Your task to perform on an android device: Open calendar and show me the fourth week of next month Image 0: 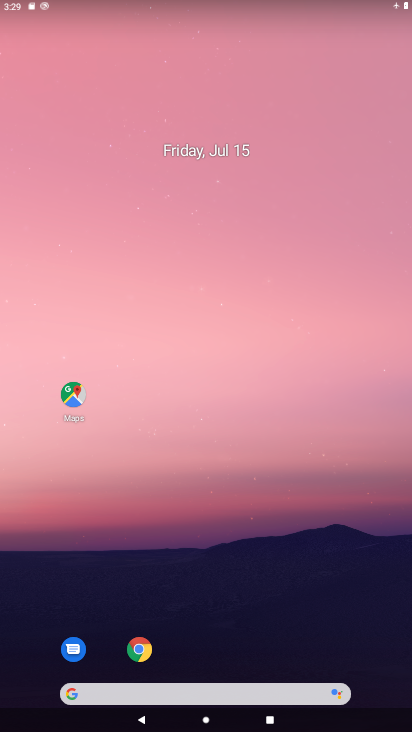
Step 0: drag from (358, 649) to (335, 171)
Your task to perform on an android device: Open calendar and show me the fourth week of next month Image 1: 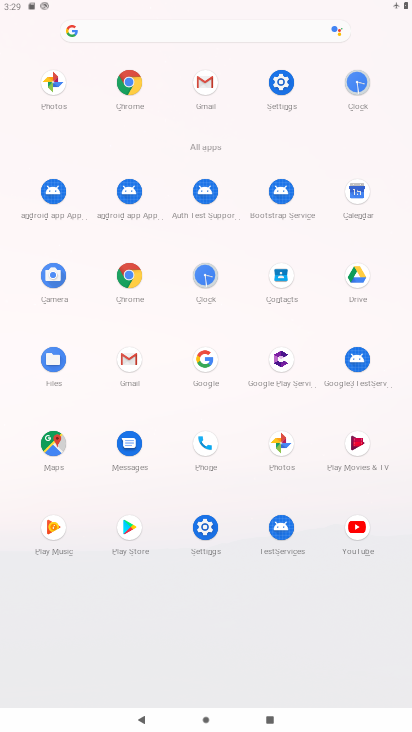
Step 1: click (358, 189)
Your task to perform on an android device: Open calendar and show me the fourth week of next month Image 2: 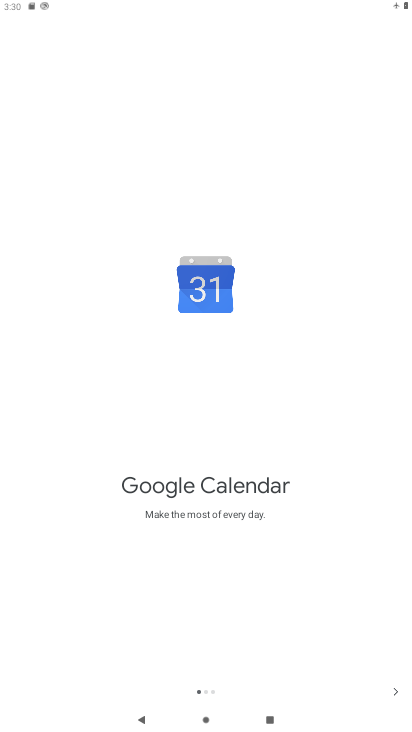
Step 2: click (395, 692)
Your task to perform on an android device: Open calendar and show me the fourth week of next month Image 3: 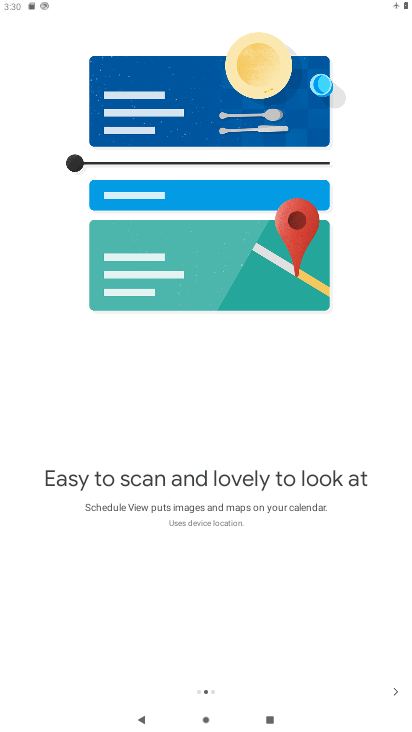
Step 3: click (394, 690)
Your task to perform on an android device: Open calendar and show me the fourth week of next month Image 4: 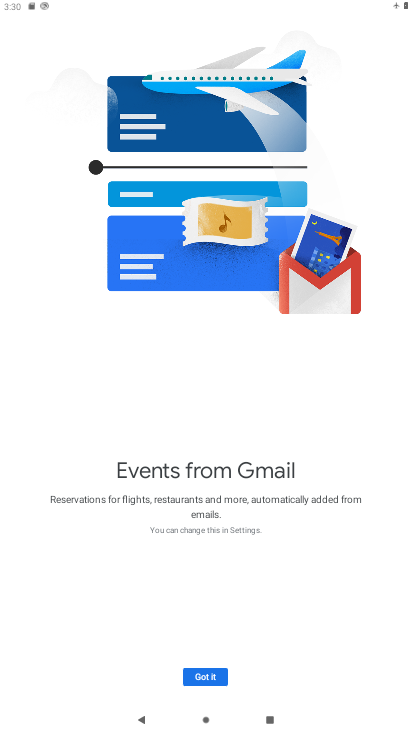
Step 4: click (195, 678)
Your task to perform on an android device: Open calendar and show me the fourth week of next month Image 5: 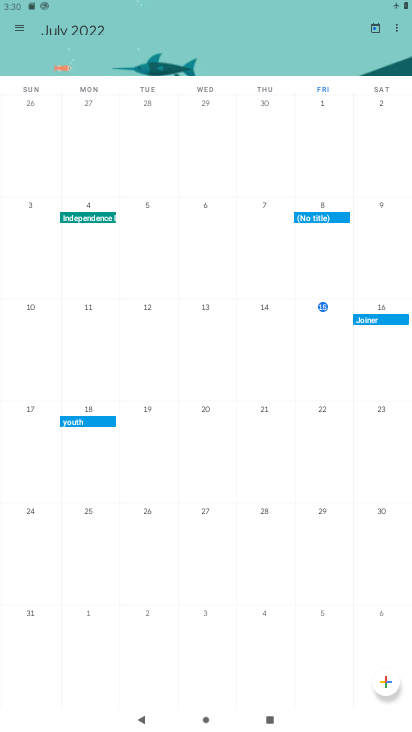
Step 5: click (17, 32)
Your task to perform on an android device: Open calendar and show me the fourth week of next month Image 6: 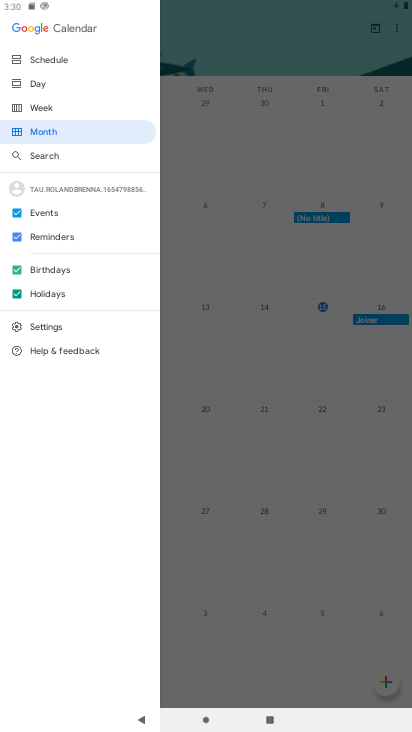
Step 6: click (35, 105)
Your task to perform on an android device: Open calendar and show me the fourth week of next month Image 7: 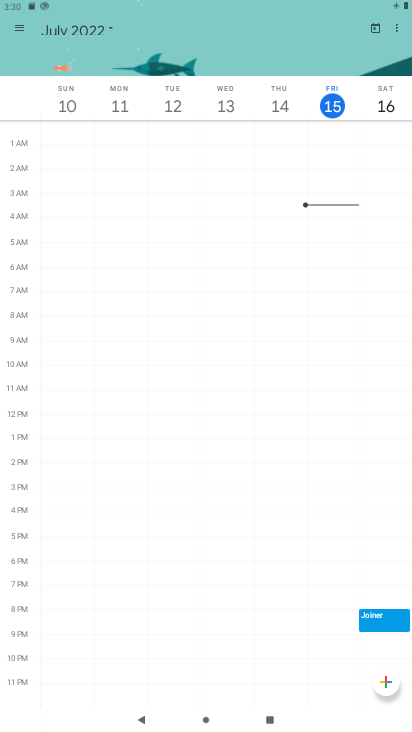
Step 7: click (110, 28)
Your task to perform on an android device: Open calendar and show me the fourth week of next month Image 8: 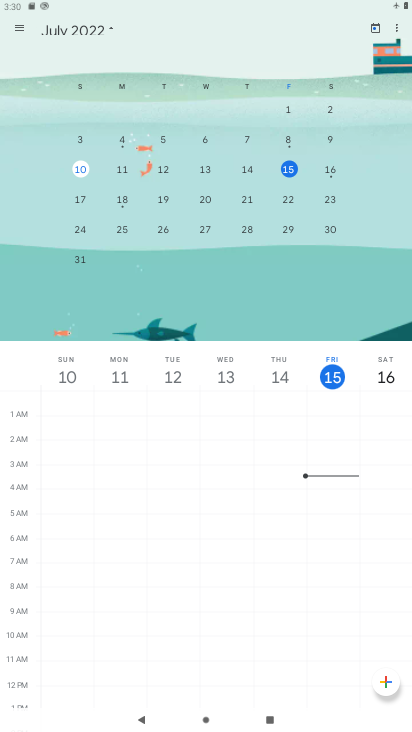
Step 8: drag from (346, 223) to (91, 229)
Your task to perform on an android device: Open calendar and show me the fourth week of next month Image 9: 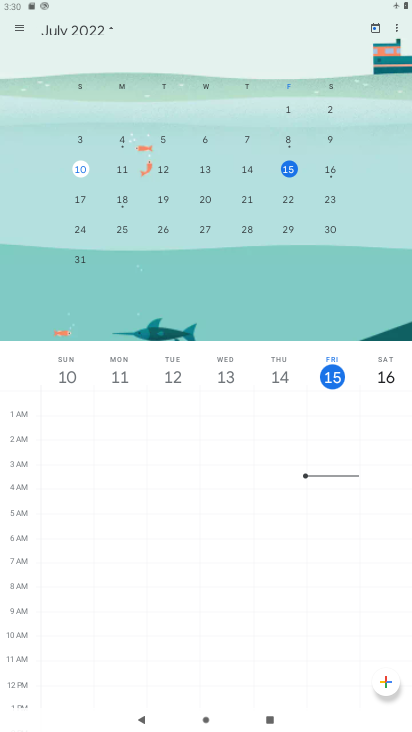
Step 9: drag from (354, 211) to (45, 211)
Your task to perform on an android device: Open calendar and show me the fourth week of next month Image 10: 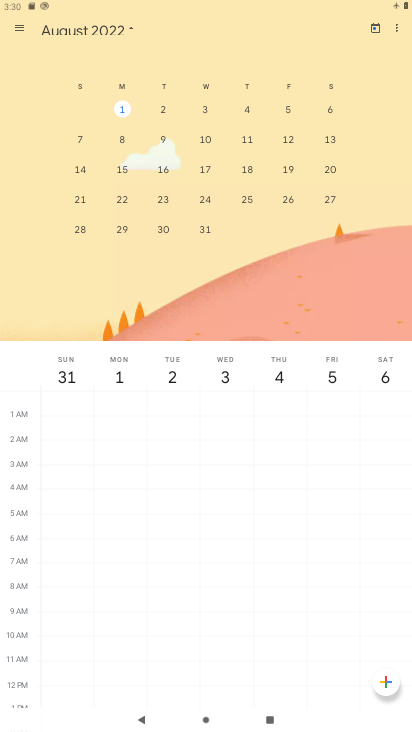
Step 10: click (79, 226)
Your task to perform on an android device: Open calendar and show me the fourth week of next month Image 11: 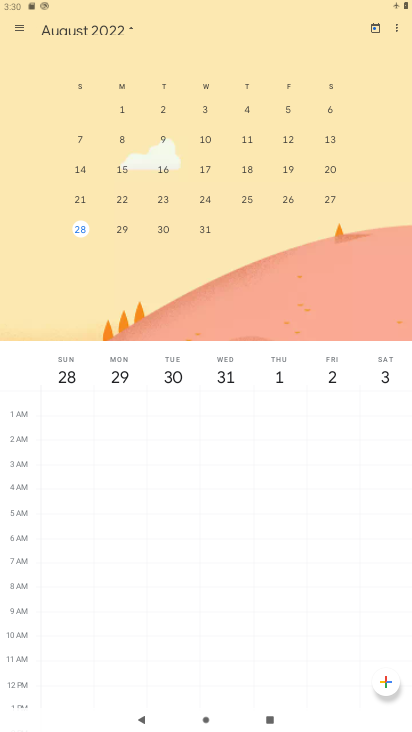
Step 11: task complete